Your task to perform on an android device: find snoozed emails in the gmail app Image 0: 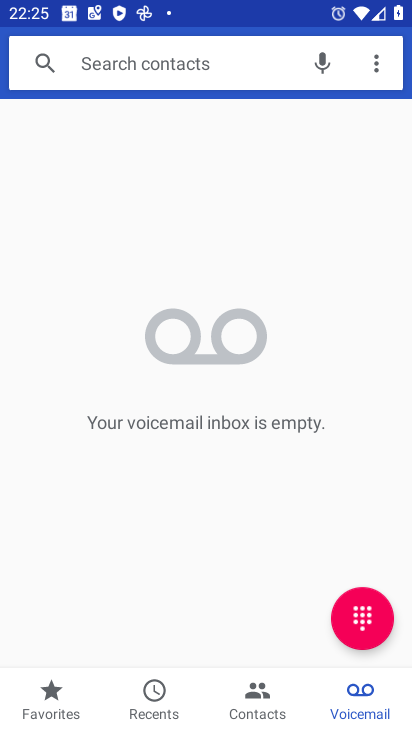
Step 0: press home button
Your task to perform on an android device: find snoozed emails in the gmail app Image 1: 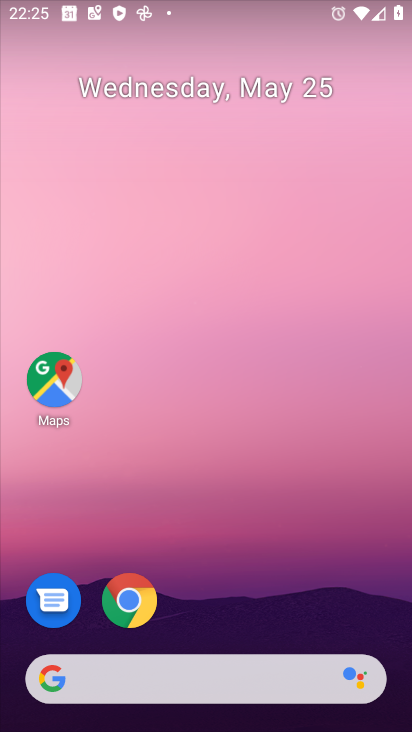
Step 1: drag from (321, 611) to (329, 102)
Your task to perform on an android device: find snoozed emails in the gmail app Image 2: 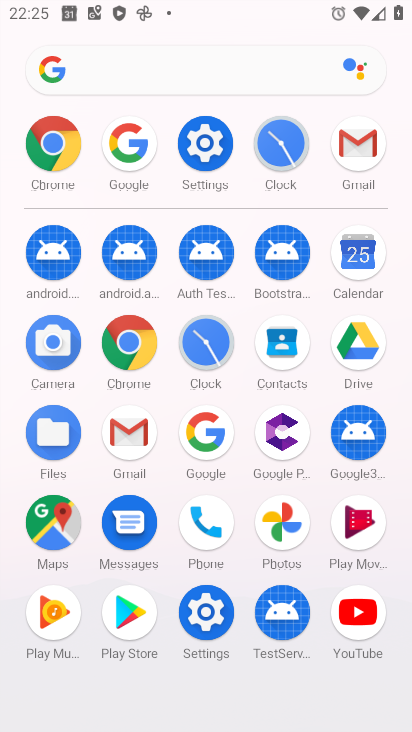
Step 2: click (131, 446)
Your task to perform on an android device: find snoozed emails in the gmail app Image 3: 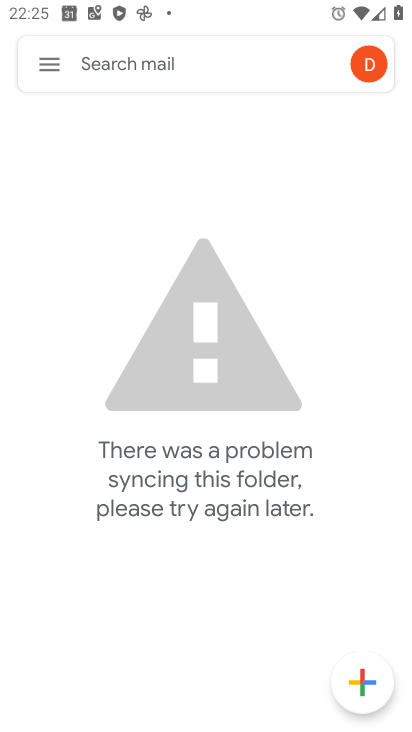
Step 3: click (56, 74)
Your task to perform on an android device: find snoozed emails in the gmail app Image 4: 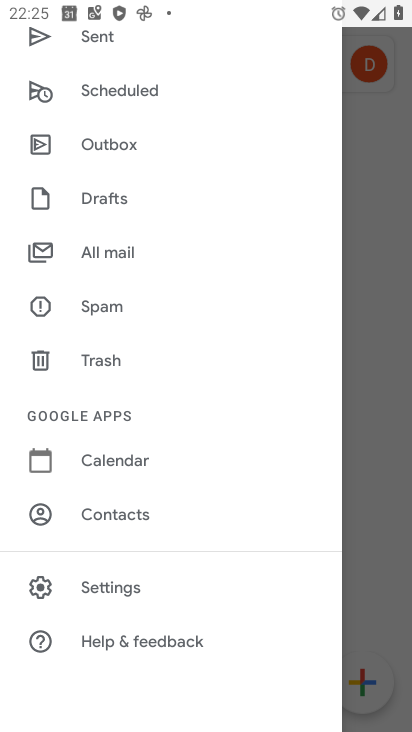
Step 4: drag from (175, 84) to (181, 490)
Your task to perform on an android device: find snoozed emails in the gmail app Image 5: 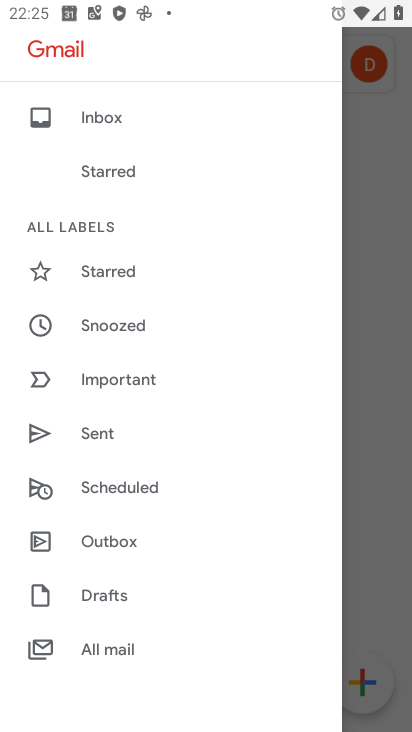
Step 5: click (131, 322)
Your task to perform on an android device: find snoozed emails in the gmail app Image 6: 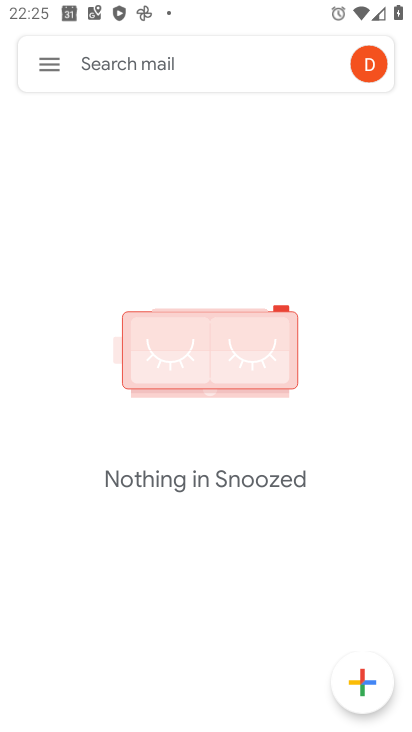
Step 6: task complete